Your task to perform on an android device: turn off notifications in google photos Image 0: 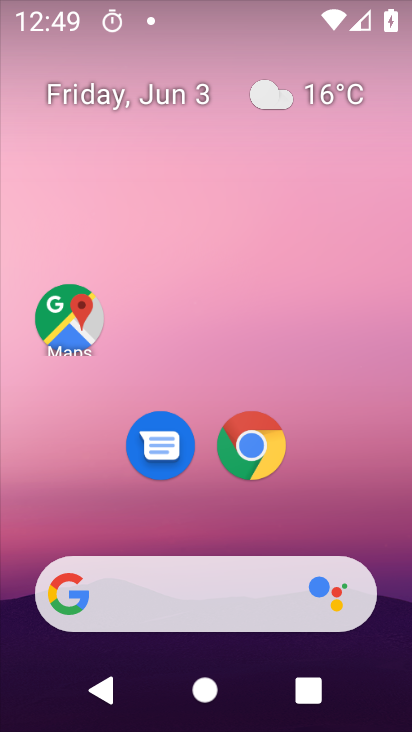
Step 0: drag from (216, 534) to (226, 238)
Your task to perform on an android device: turn off notifications in google photos Image 1: 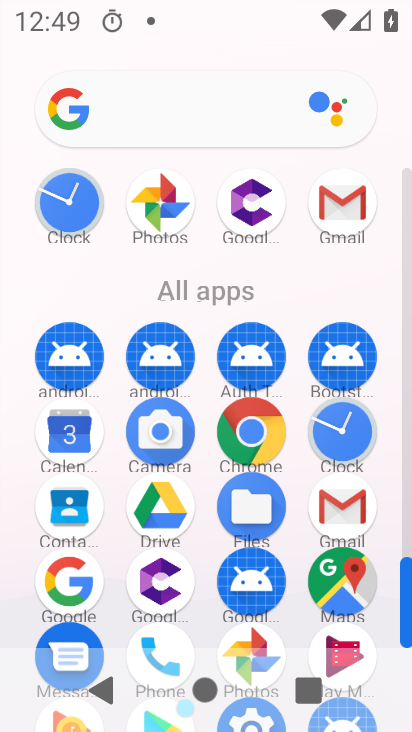
Step 1: click (180, 206)
Your task to perform on an android device: turn off notifications in google photos Image 2: 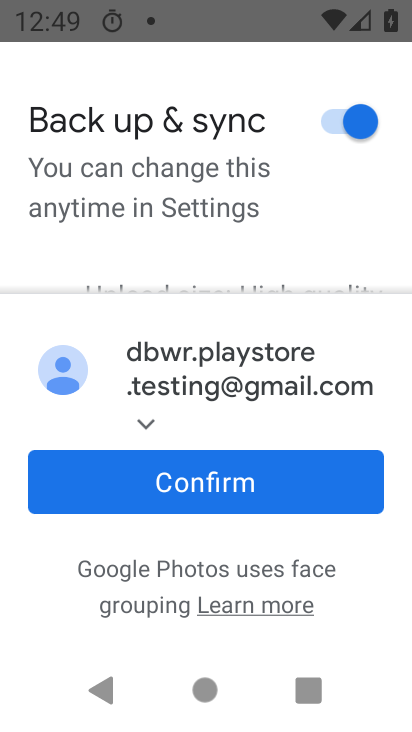
Step 2: click (65, 100)
Your task to perform on an android device: turn off notifications in google photos Image 3: 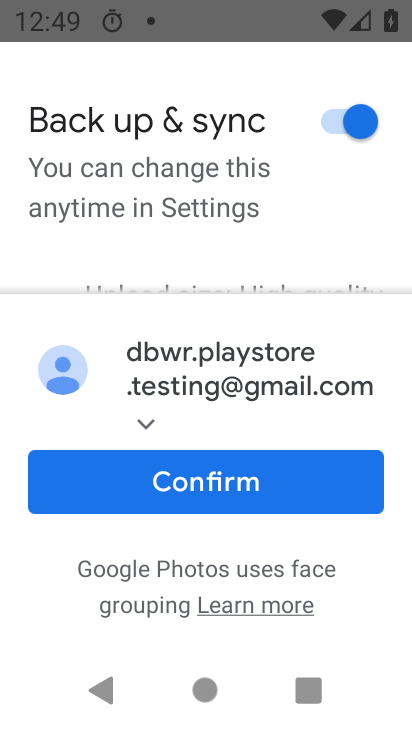
Step 3: click (136, 455)
Your task to perform on an android device: turn off notifications in google photos Image 4: 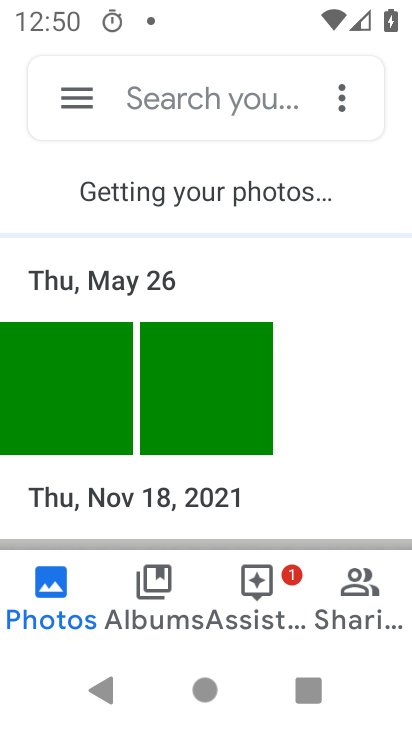
Step 4: click (78, 96)
Your task to perform on an android device: turn off notifications in google photos Image 5: 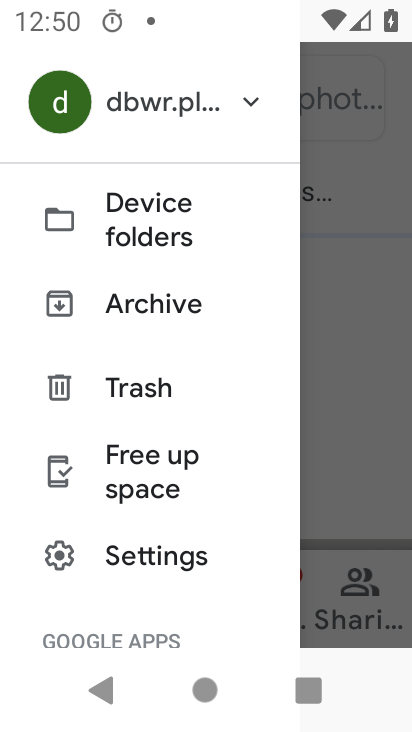
Step 5: click (169, 567)
Your task to perform on an android device: turn off notifications in google photos Image 6: 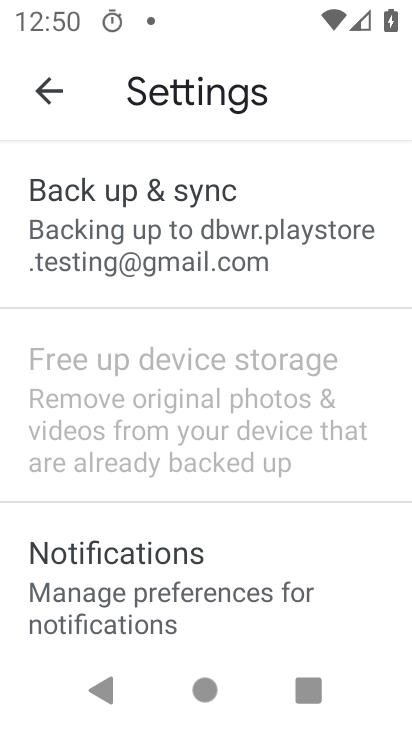
Step 6: click (166, 643)
Your task to perform on an android device: turn off notifications in google photos Image 7: 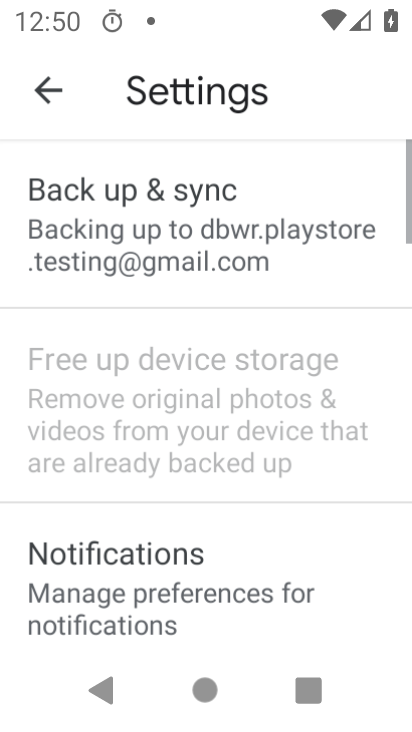
Step 7: click (99, 561)
Your task to perform on an android device: turn off notifications in google photos Image 8: 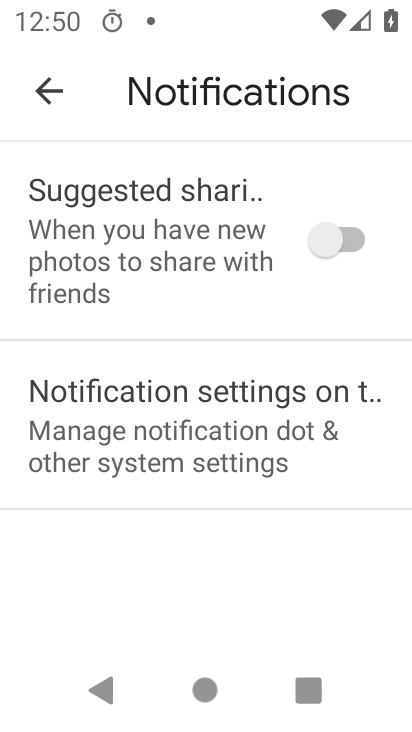
Step 8: click (225, 410)
Your task to perform on an android device: turn off notifications in google photos Image 9: 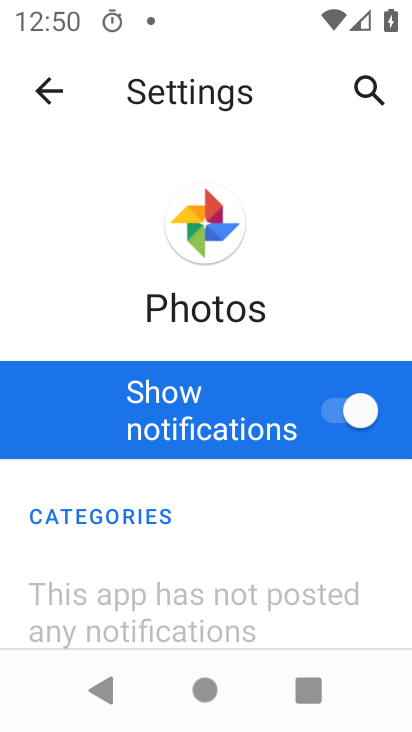
Step 9: click (338, 411)
Your task to perform on an android device: turn off notifications in google photos Image 10: 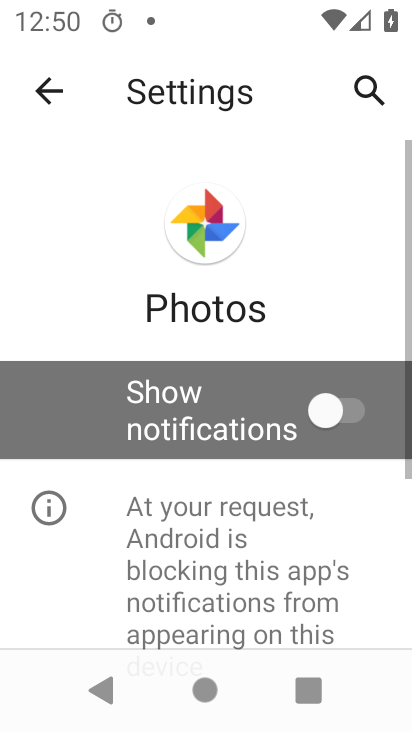
Step 10: task complete